Your task to perform on an android device: change the clock display to show seconds Image 0: 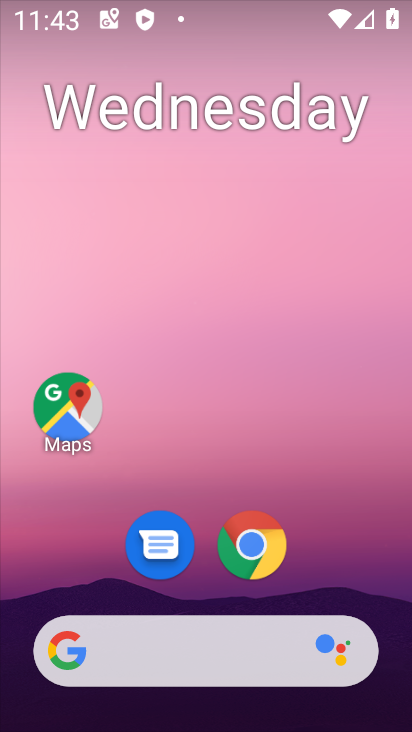
Step 0: drag from (354, 573) to (358, 111)
Your task to perform on an android device: change the clock display to show seconds Image 1: 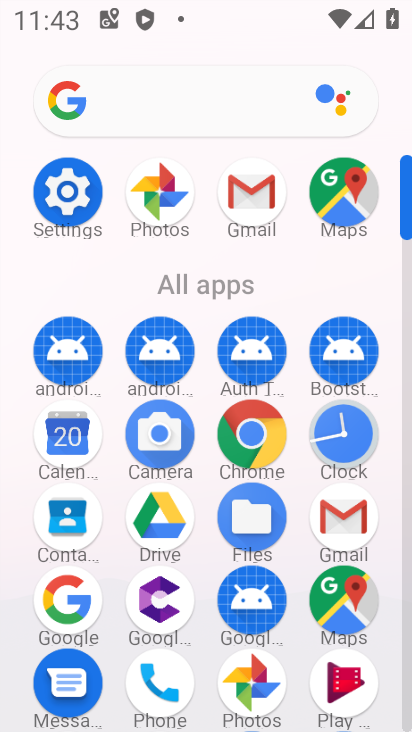
Step 1: click (356, 446)
Your task to perform on an android device: change the clock display to show seconds Image 2: 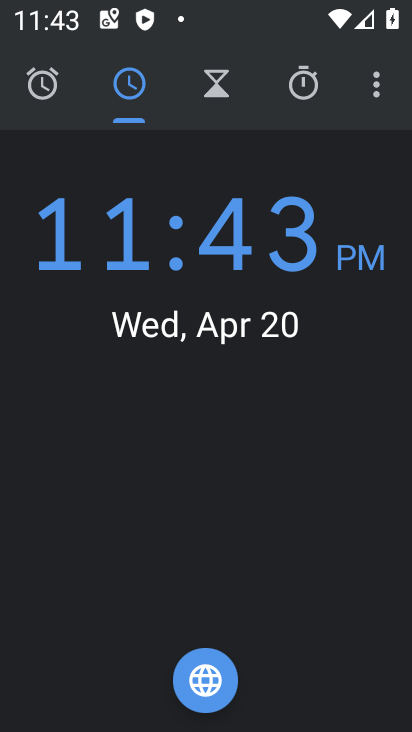
Step 2: click (369, 86)
Your task to perform on an android device: change the clock display to show seconds Image 3: 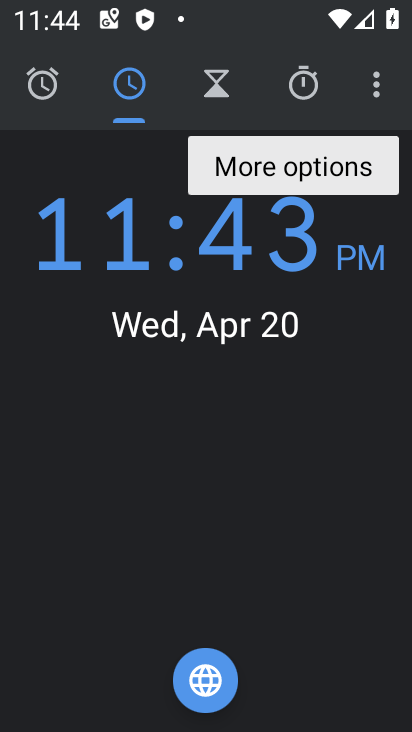
Step 3: click (384, 78)
Your task to perform on an android device: change the clock display to show seconds Image 4: 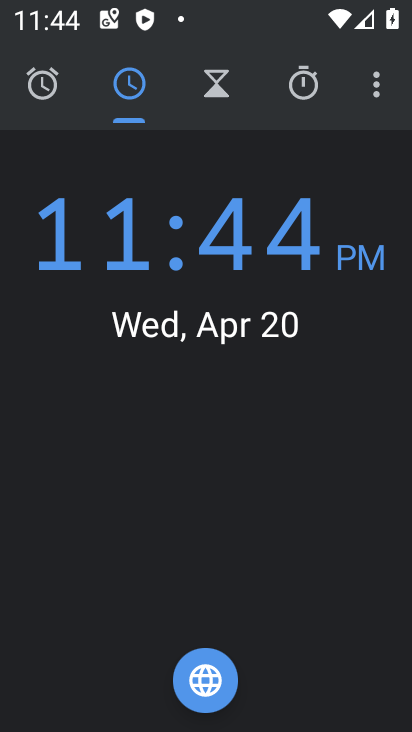
Step 4: click (376, 88)
Your task to perform on an android device: change the clock display to show seconds Image 5: 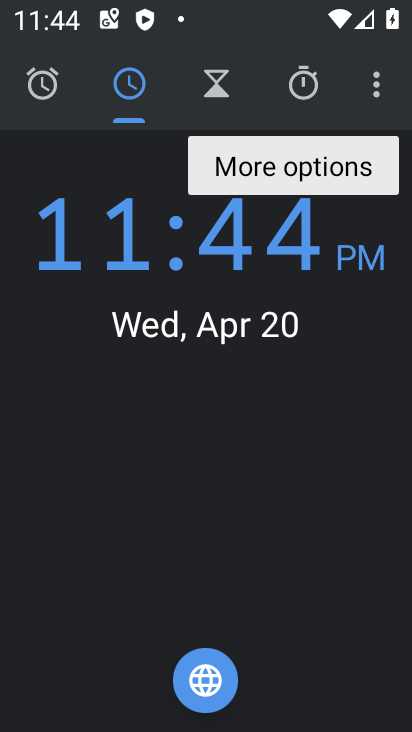
Step 5: click (376, 86)
Your task to perform on an android device: change the clock display to show seconds Image 6: 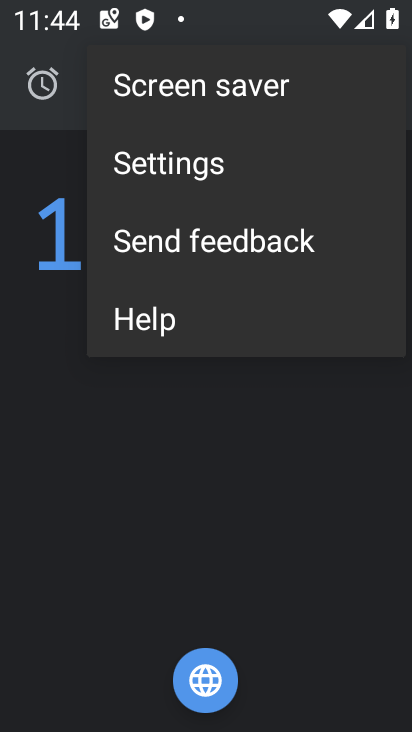
Step 6: click (277, 154)
Your task to perform on an android device: change the clock display to show seconds Image 7: 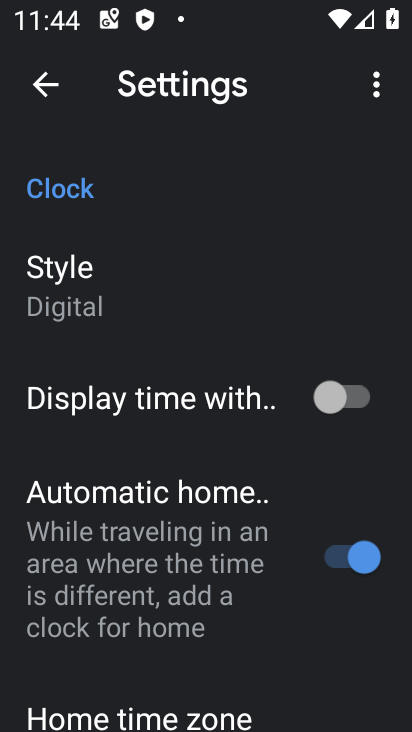
Step 7: drag from (220, 629) to (254, 333)
Your task to perform on an android device: change the clock display to show seconds Image 8: 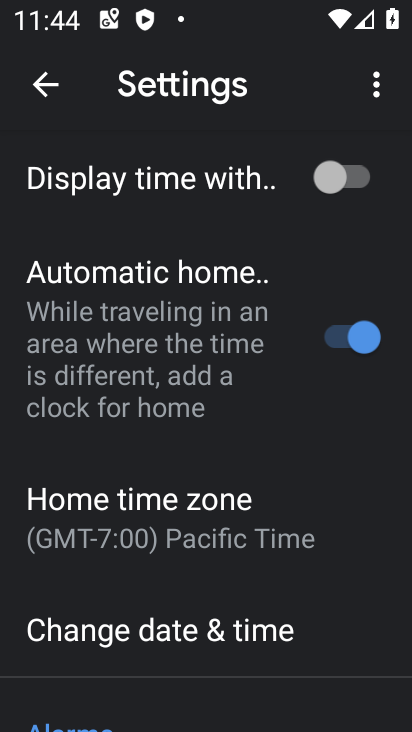
Step 8: drag from (243, 663) to (227, 381)
Your task to perform on an android device: change the clock display to show seconds Image 9: 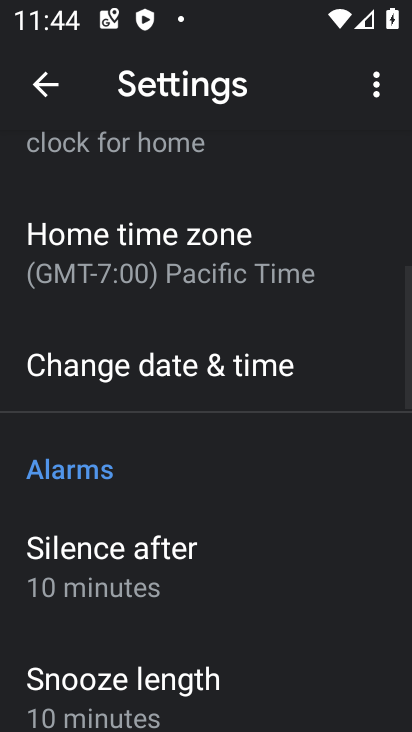
Step 9: drag from (239, 648) to (240, 421)
Your task to perform on an android device: change the clock display to show seconds Image 10: 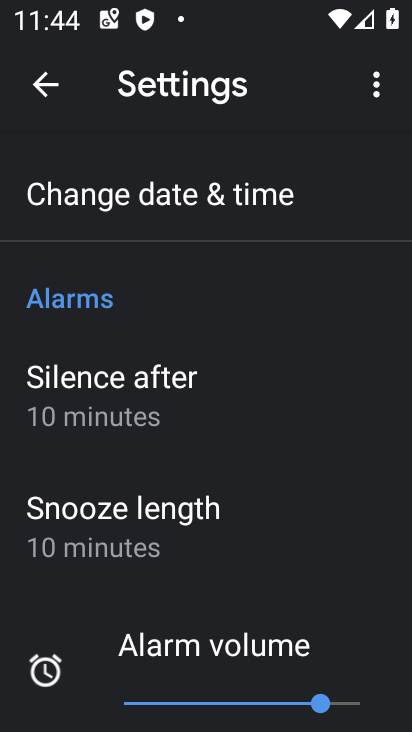
Step 10: drag from (314, 252) to (280, 216)
Your task to perform on an android device: change the clock display to show seconds Image 11: 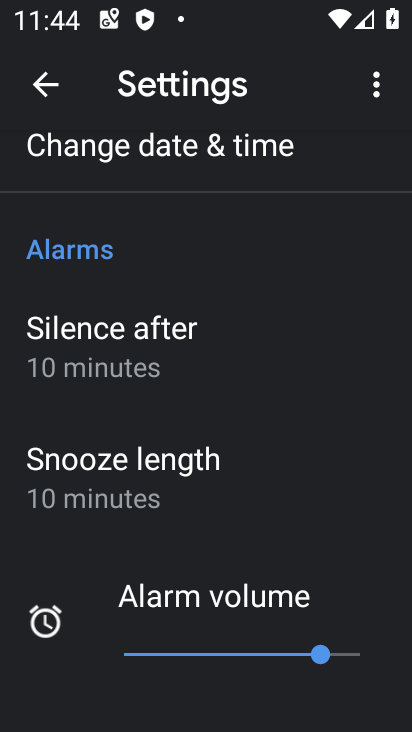
Step 11: drag from (294, 696) to (317, 393)
Your task to perform on an android device: change the clock display to show seconds Image 12: 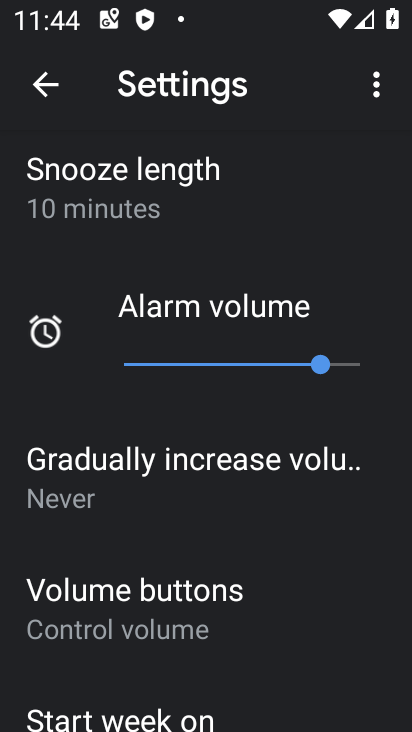
Step 12: drag from (208, 653) to (237, 406)
Your task to perform on an android device: change the clock display to show seconds Image 13: 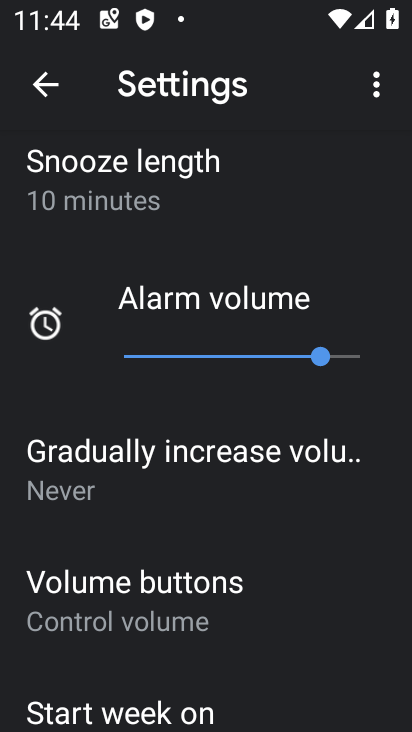
Step 13: drag from (260, 640) to (264, 347)
Your task to perform on an android device: change the clock display to show seconds Image 14: 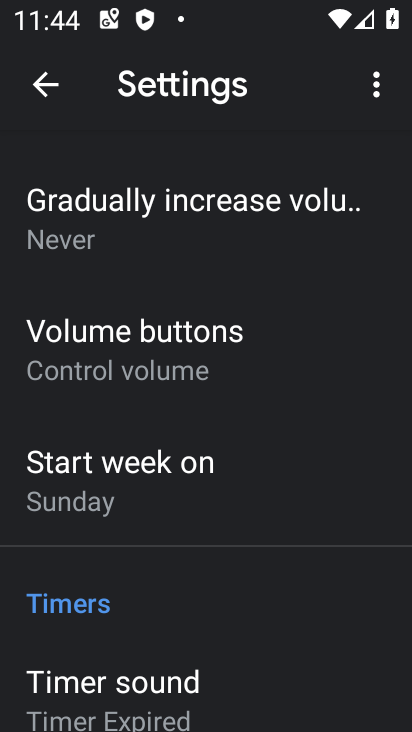
Step 14: drag from (232, 606) to (249, 714)
Your task to perform on an android device: change the clock display to show seconds Image 15: 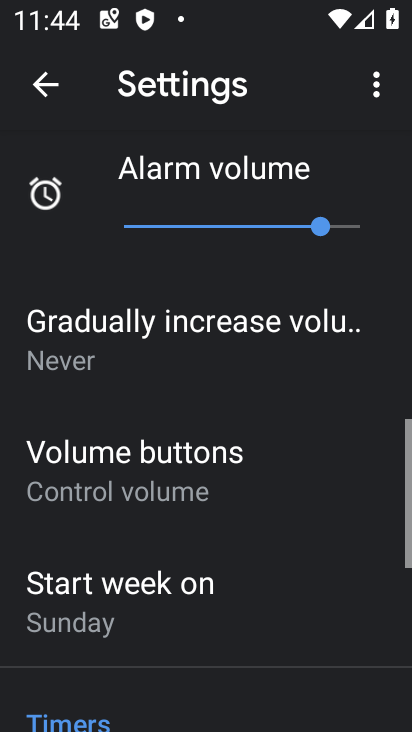
Step 15: drag from (249, 381) to (225, 675)
Your task to perform on an android device: change the clock display to show seconds Image 16: 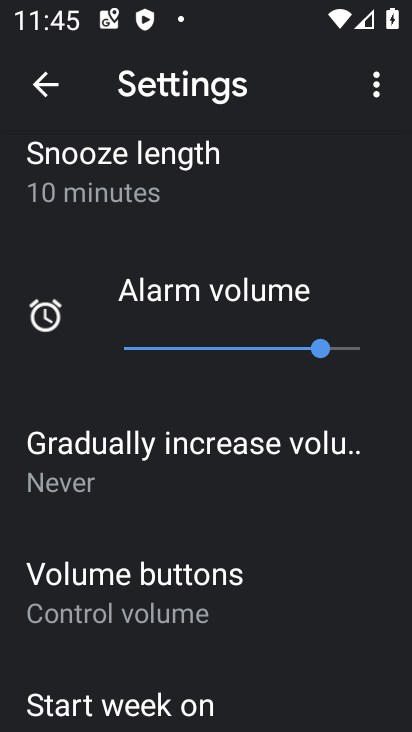
Step 16: click (46, 88)
Your task to perform on an android device: change the clock display to show seconds Image 17: 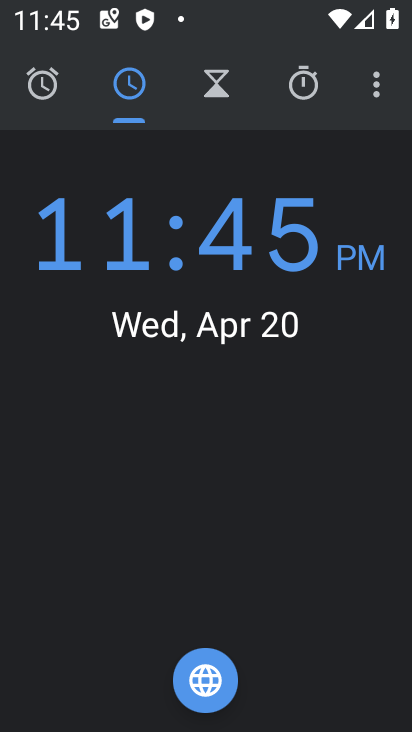
Step 17: drag from (45, 98) to (312, 190)
Your task to perform on an android device: change the clock display to show seconds Image 18: 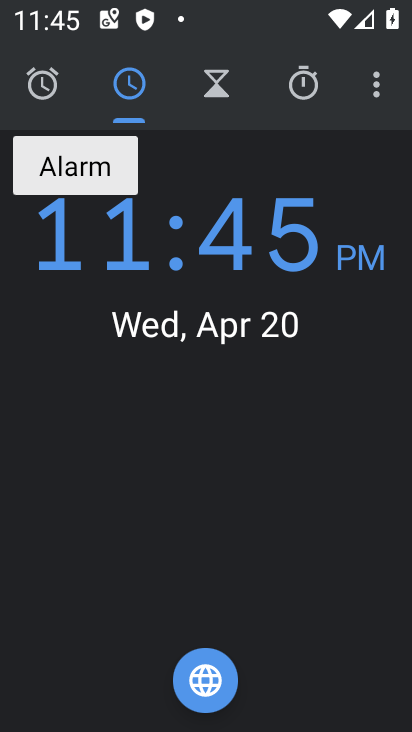
Step 18: click (370, 98)
Your task to perform on an android device: change the clock display to show seconds Image 19: 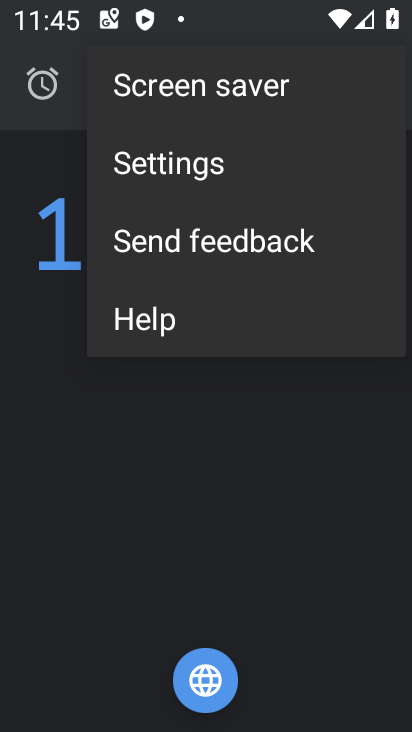
Step 19: click (210, 160)
Your task to perform on an android device: change the clock display to show seconds Image 20: 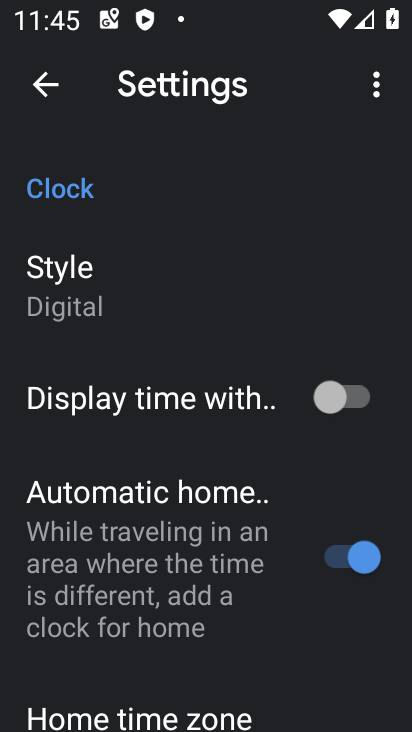
Step 20: click (359, 403)
Your task to perform on an android device: change the clock display to show seconds Image 21: 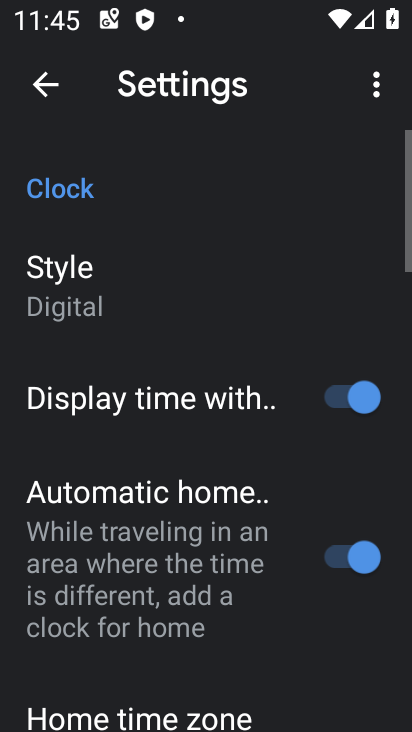
Step 21: task complete